Your task to perform on an android device: Turn on the flashlight Image 0: 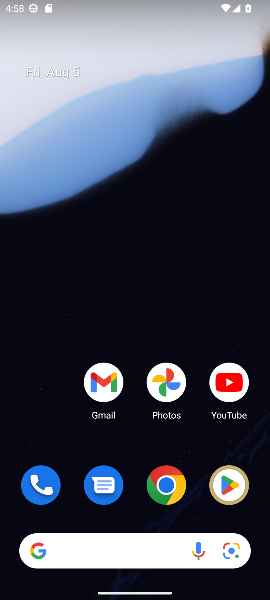
Step 0: drag from (174, 7) to (174, 371)
Your task to perform on an android device: Turn on the flashlight Image 1: 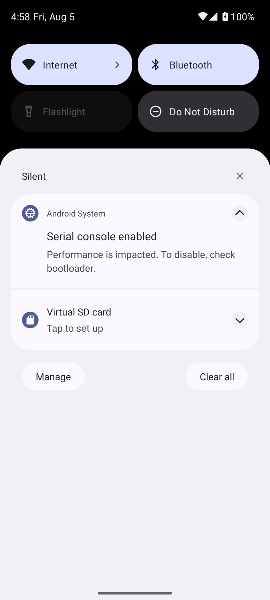
Step 1: click (112, 122)
Your task to perform on an android device: Turn on the flashlight Image 2: 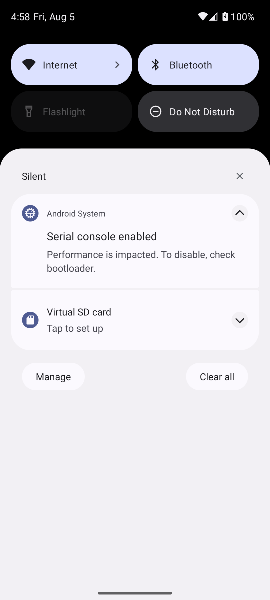
Step 2: task complete